Your task to perform on an android device: uninstall "DoorDash - Food Delivery" Image 0: 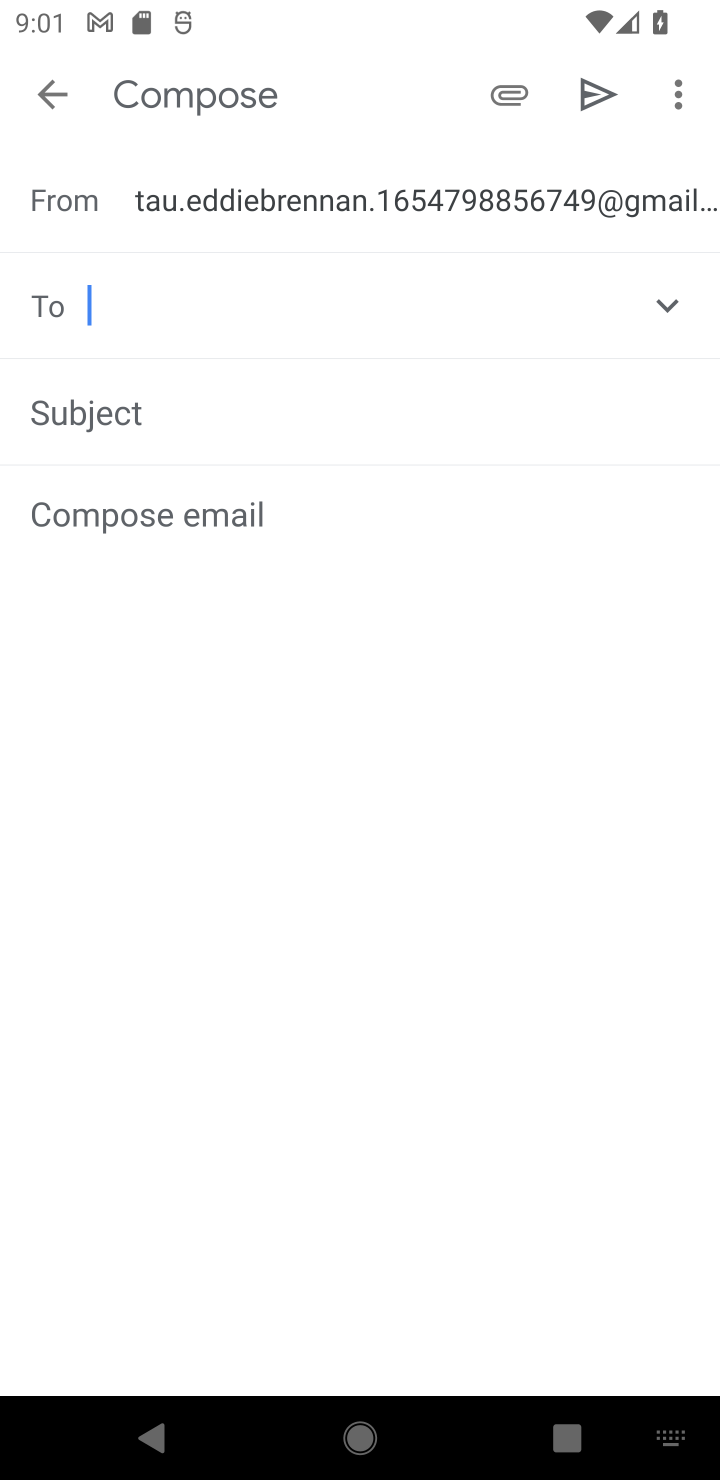
Step 0: press home button
Your task to perform on an android device: uninstall "DoorDash - Food Delivery" Image 1: 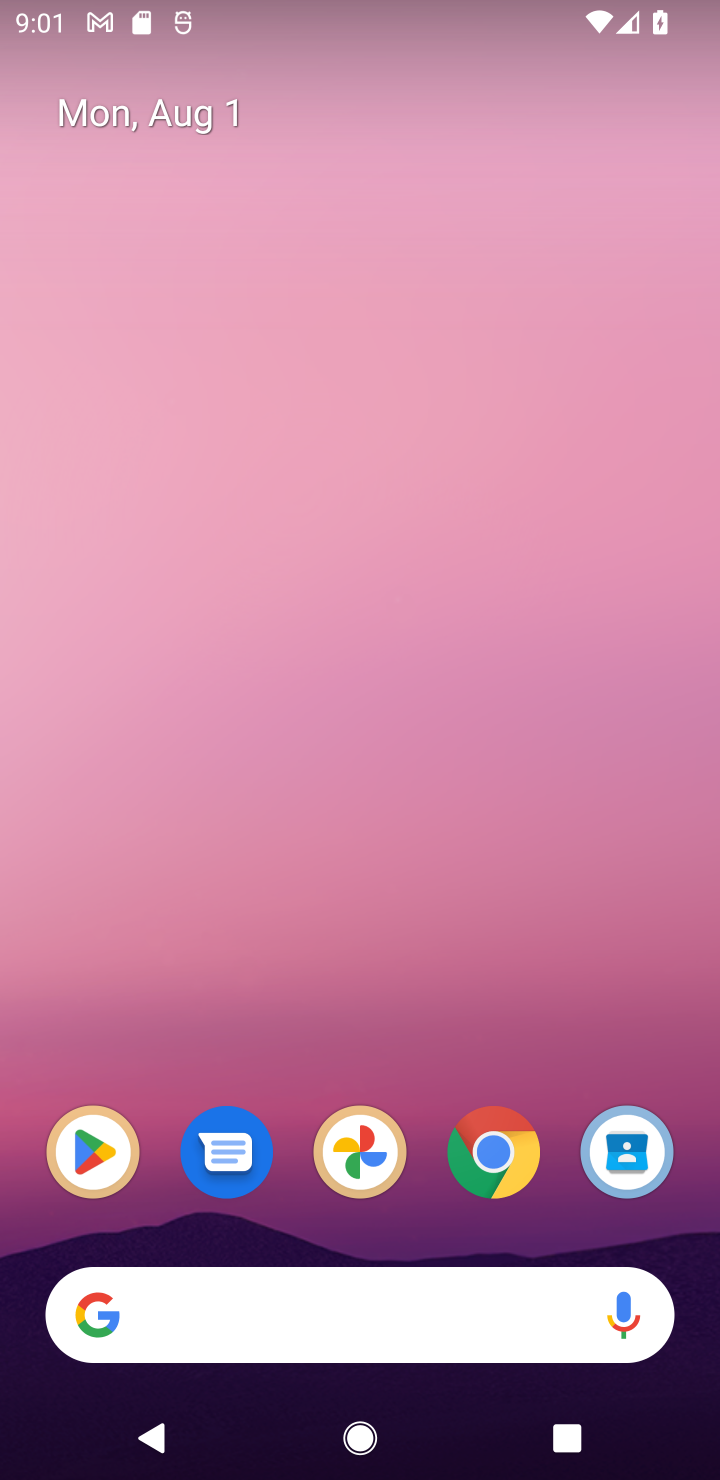
Step 1: click (58, 1182)
Your task to perform on an android device: uninstall "DoorDash - Food Delivery" Image 2: 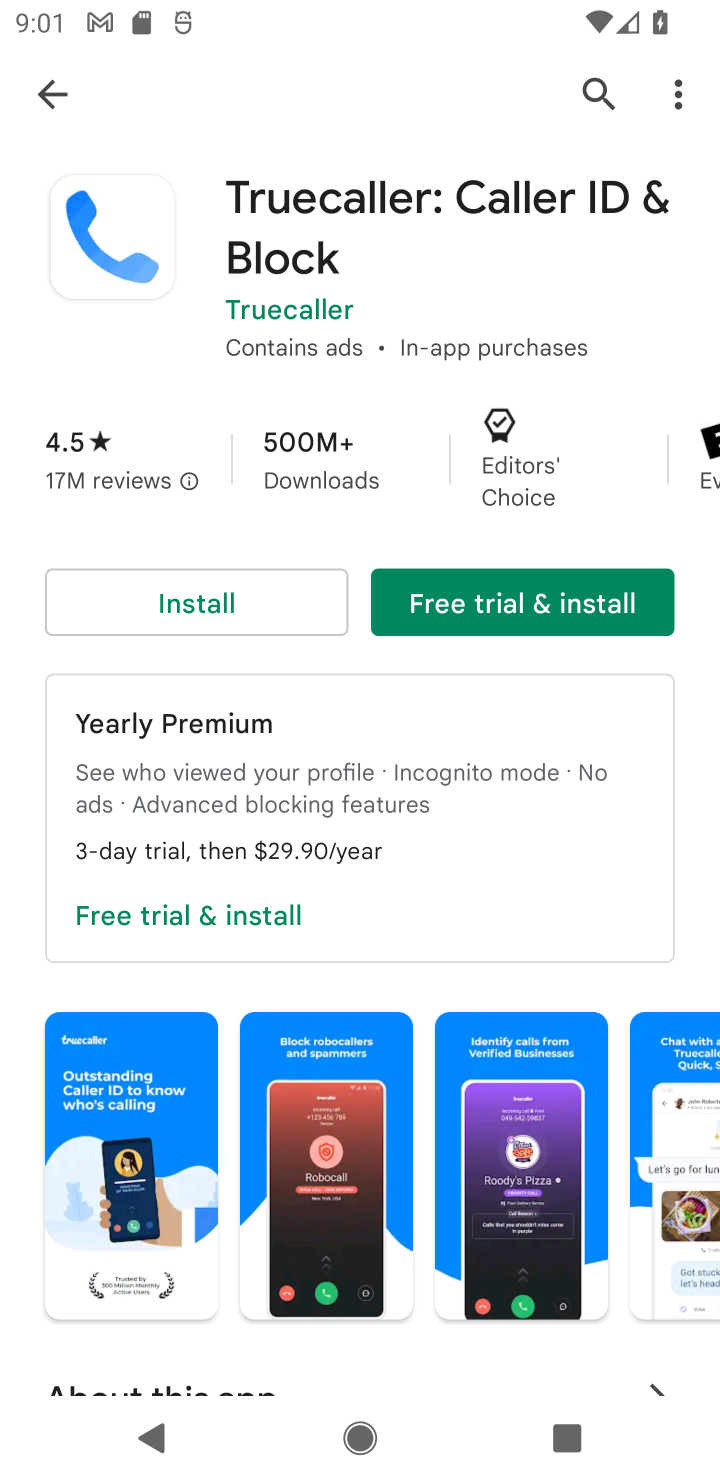
Step 2: click (27, 106)
Your task to perform on an android device: uninstall "DoorDash - Food Delivery" Image 3: 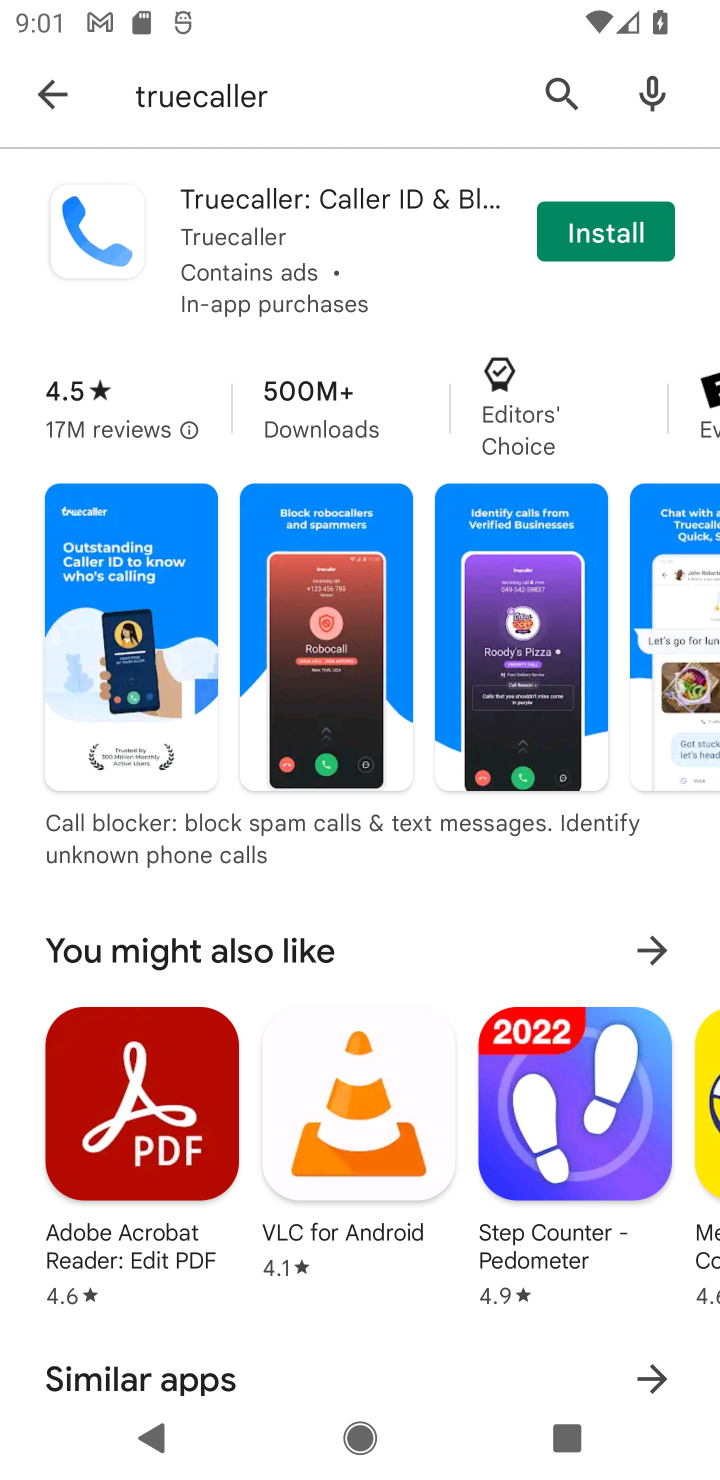
Step 3: click (53, 96)
Your task to perform on an android device: uninstall "DoorDash - Food Delivery" Image 4: 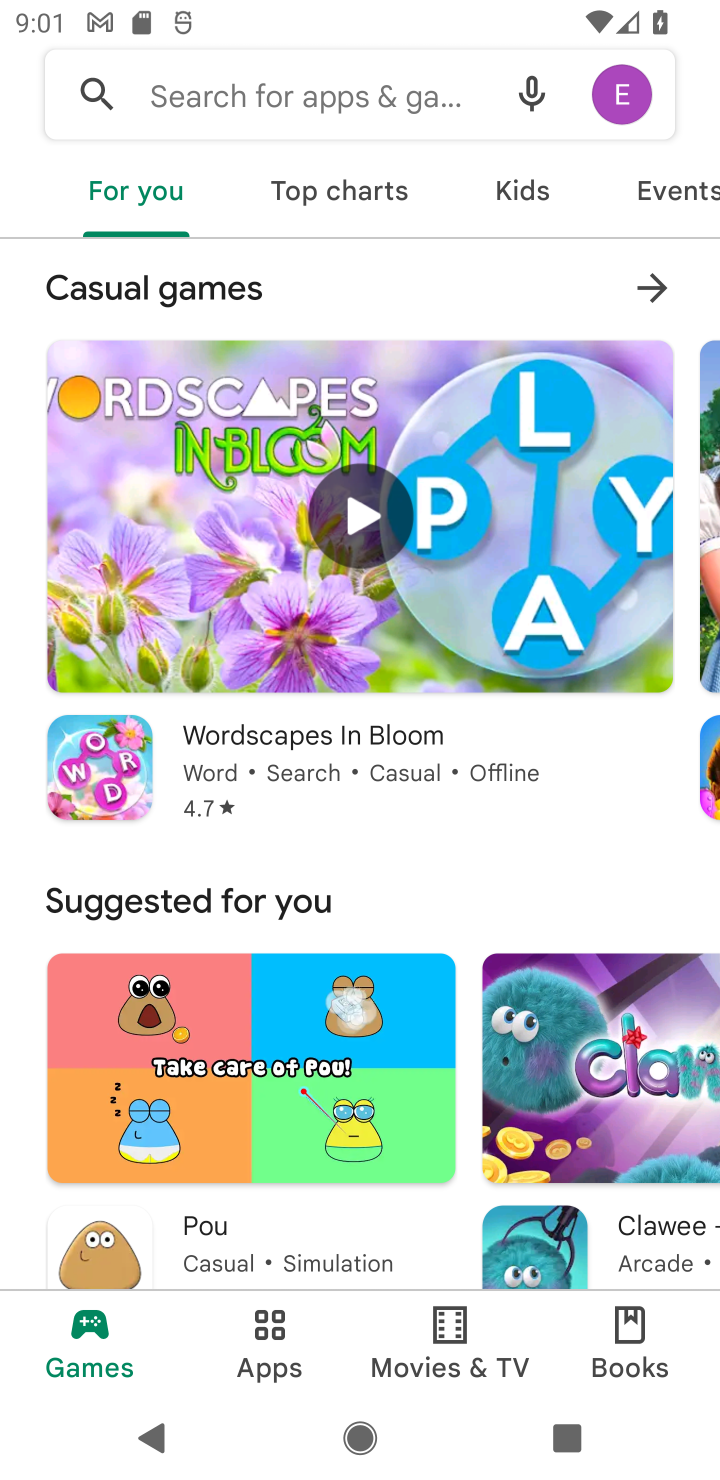
Step 4: click (218, 72)
Your task to perform on an android device: uninstall "DoorDash - Food Delivery" Image 5: 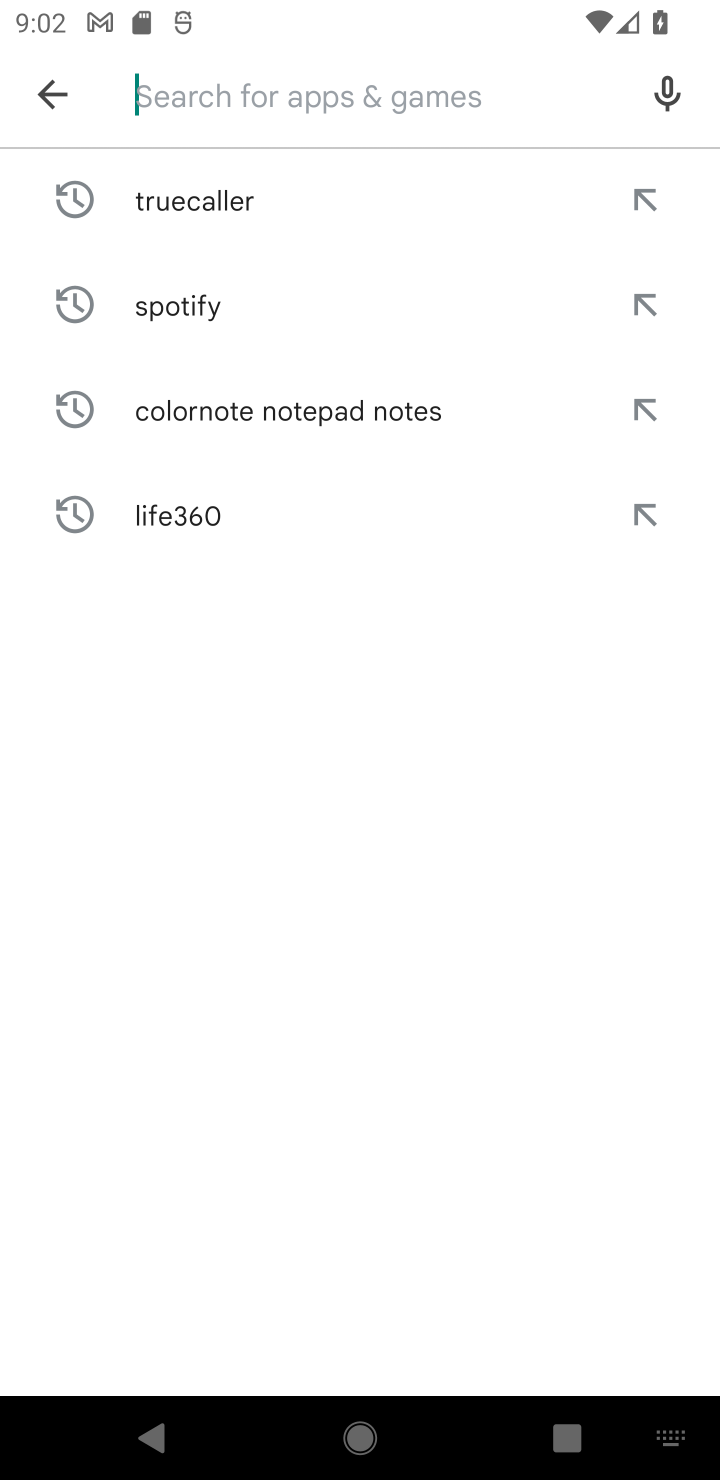
Step 5: type "DoorDash - Food Delivery"
Your task to perform on an android device: uninstall "DoorDash - Food Delivery" Image 6: 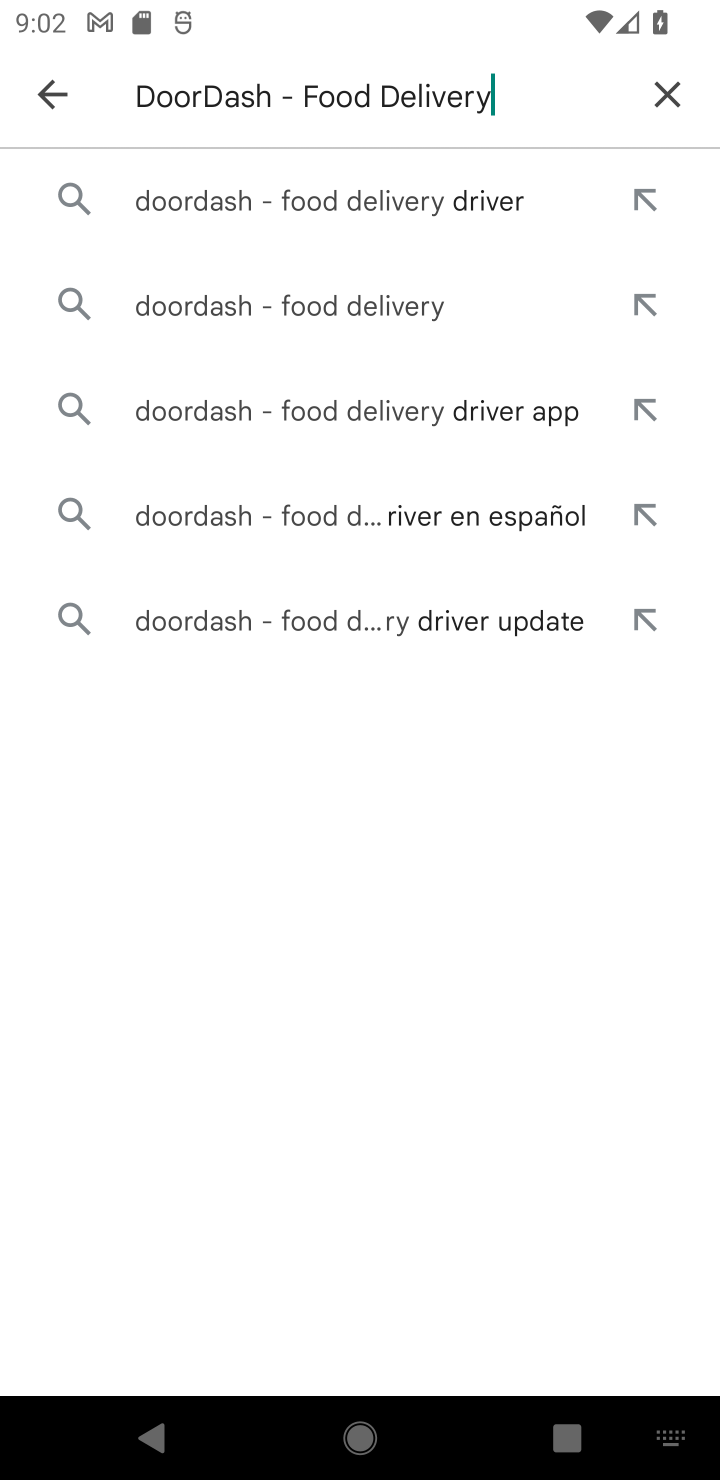
Step 6: click (376, 190)
Your task to perform on an android device: uninstall "DoorDash - Food Delivery" Image 7: 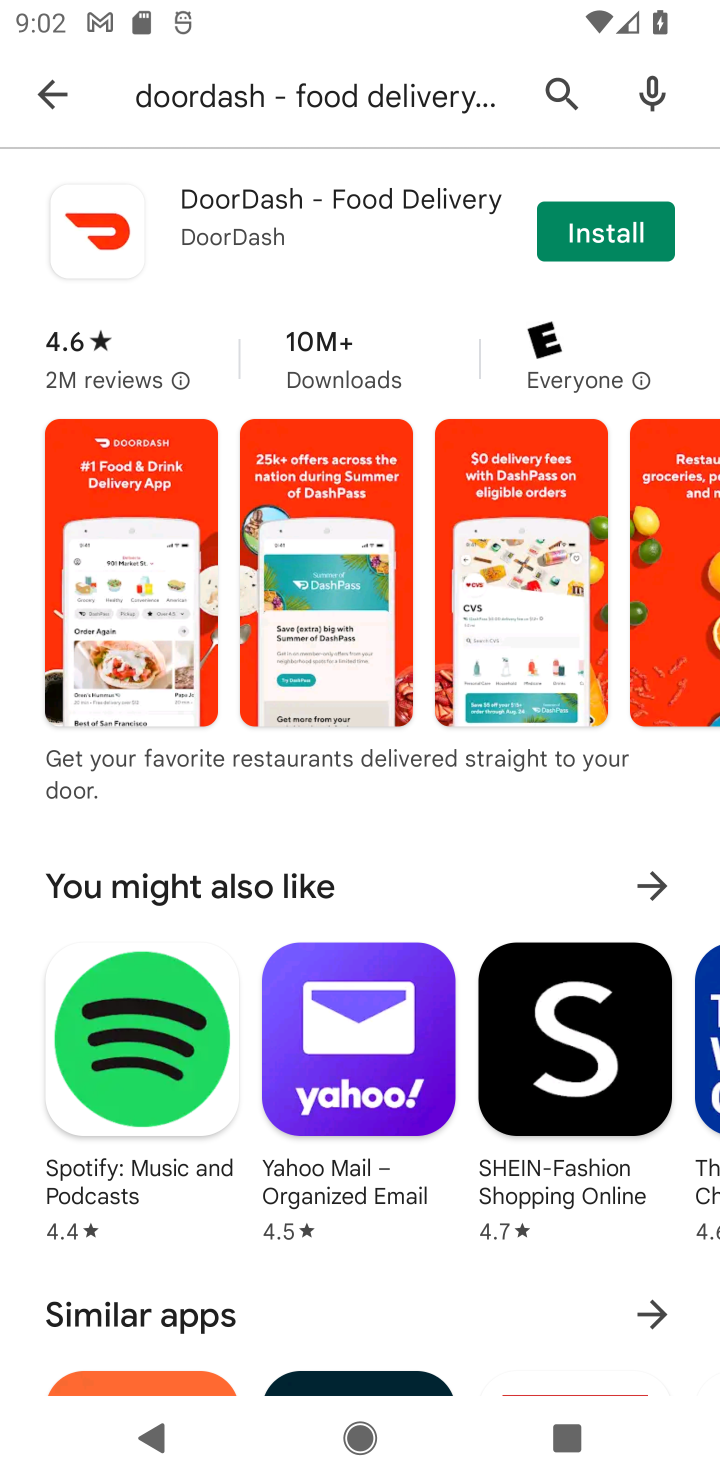
Step 7: task complete